Your task to perform on an android device: star an email in the gmail app Image 0: 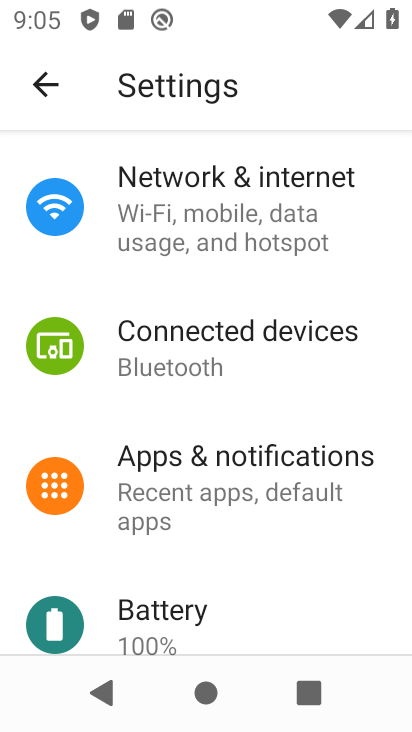
Step 0: press back button
Your task to perform on an android device: star an email in the gmail app Image 1: 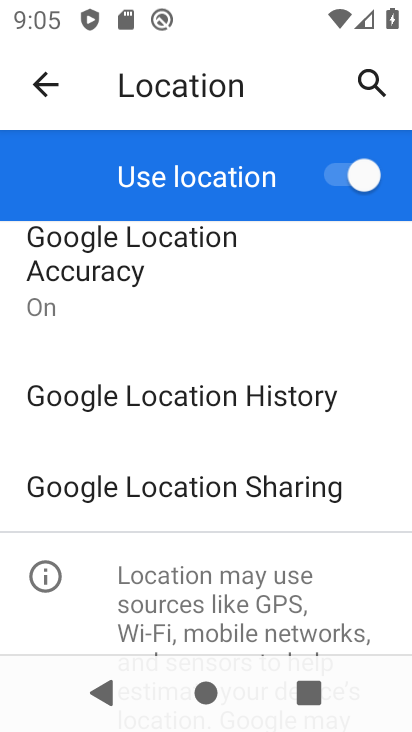
Step 1: press home button
Your task to perform on an android device: star an email in the gmail app Image 2: 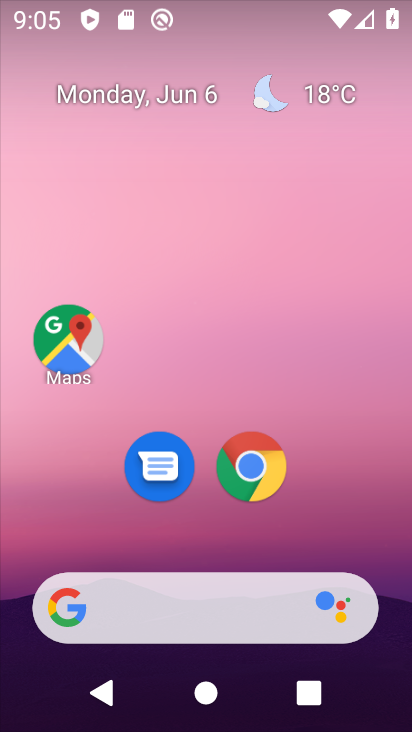
Step 2: drag from (191, 530) to (188, 139)
Your task to perform on an android device: star an email in the gmail app Image 3: 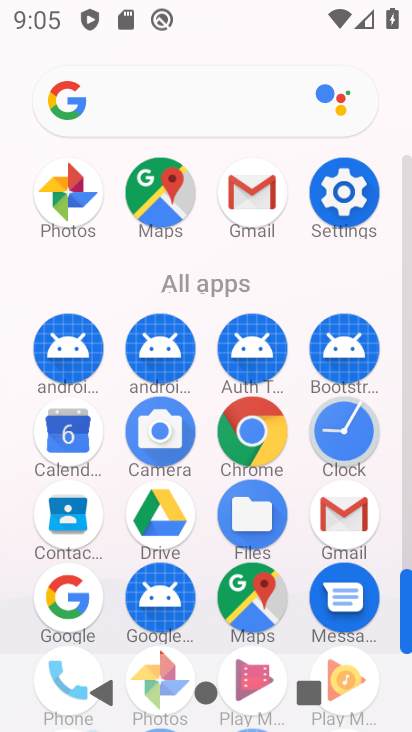
Step 3: click (254, 188)
Your task to perform on an android device: star an email in the gmail app Image 4: 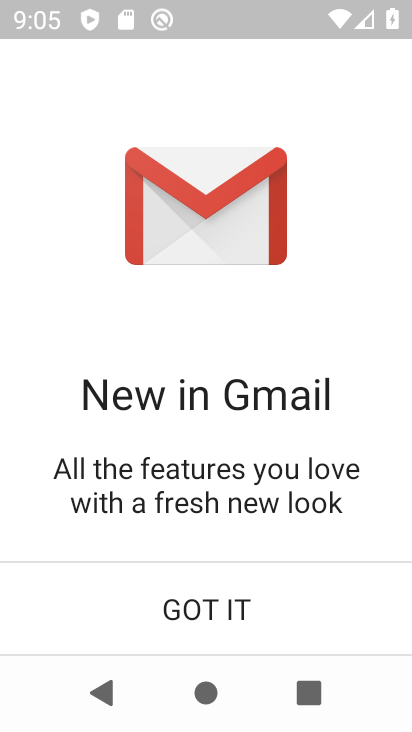
Step 4: click (237, 621)
Your task to perform on an android device: star an email in the gmail app Image 5: 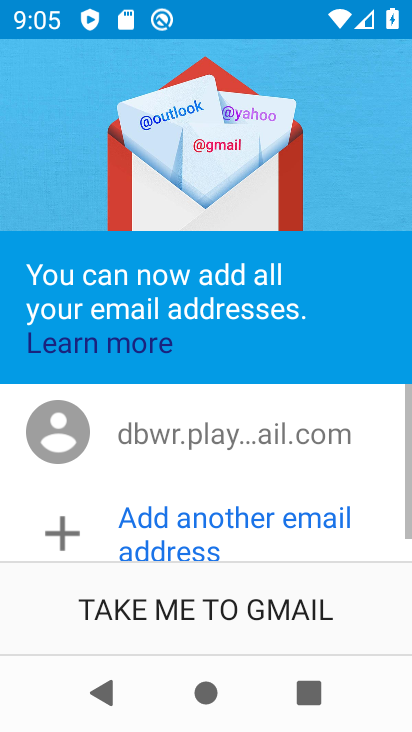
Step 5: click (237, 621)
Your task to perform on an android device: star an email in the gmail app Image 6: 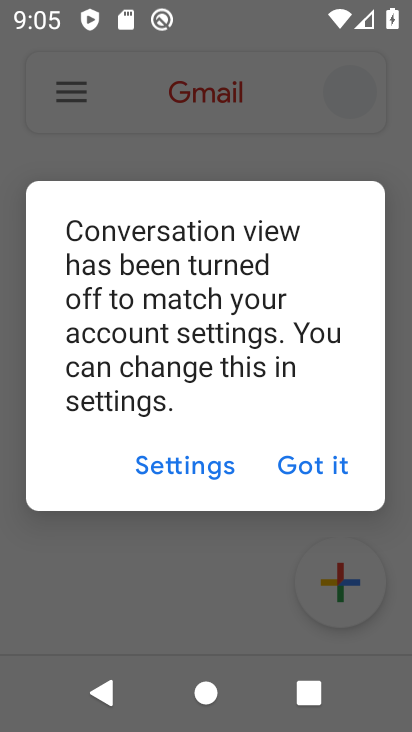
Step 6: click (318, 447)
Your task to perform on an android device: star an email in the gmail app Image 7: 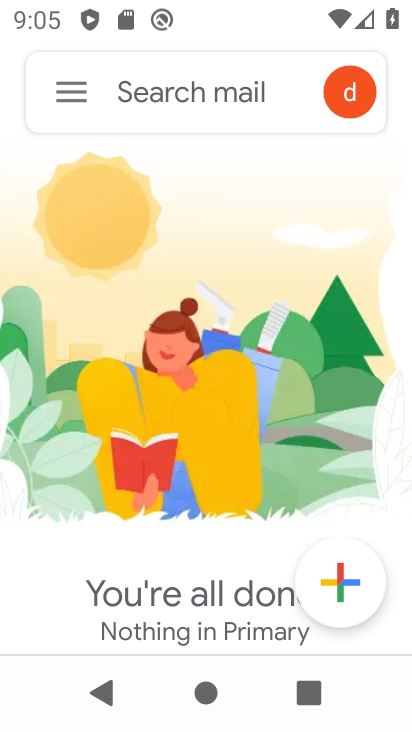
Step 7: click (84, 94)
Your task to perform on an android device: star an email in the gmail app Image 8: 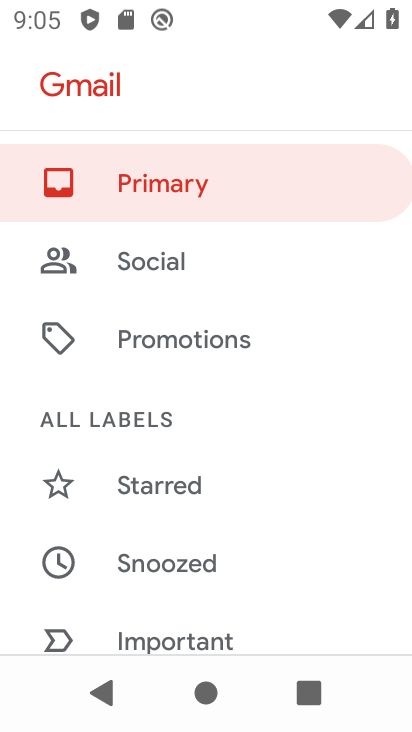
Step 8: drag from (243, 607) to (243, 317)
Your task to perform on an android device: star an email in the gmail app Image 9: 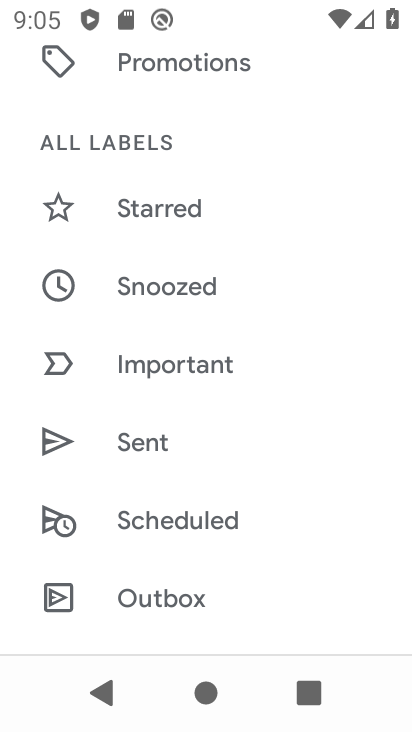
Step 9: drag from (166, 572) to (177, 258)
Your task to perform on an android device: star an email in the gmail app Image 10: 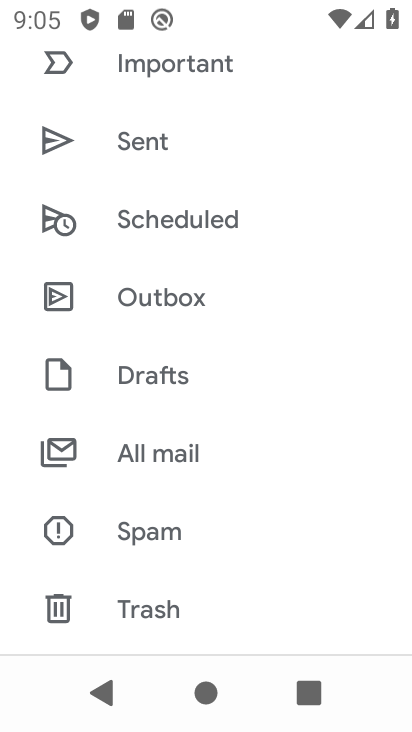
Step 10: click (204, 472)
Your task to perform on an android device: star an email in the gmail app Image 11: 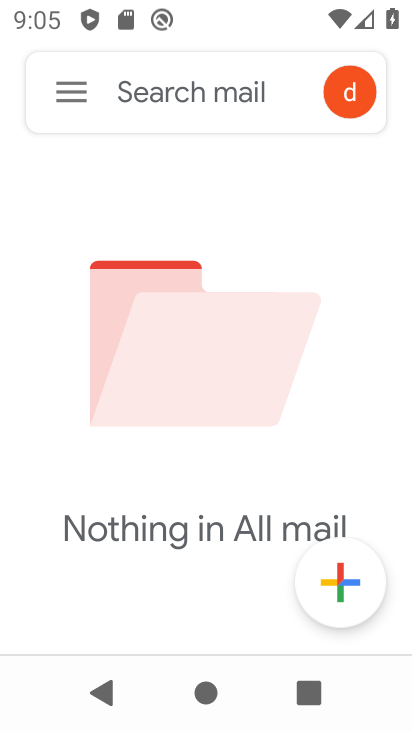
Step 11: task complete